Your task to perform on an android device: snooze an email in the gmail app Image 0: 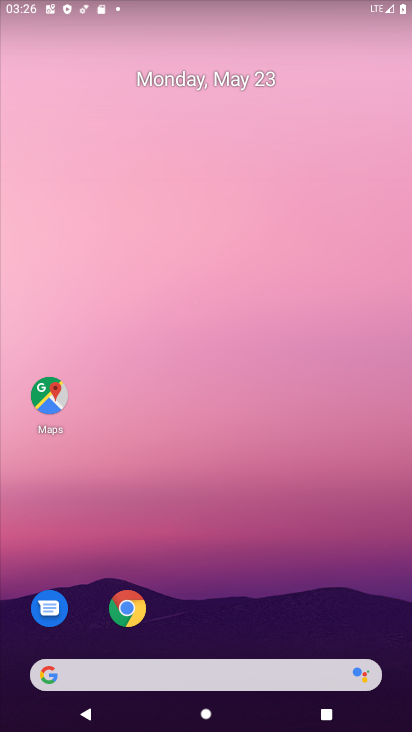
Step 0: drag from (282, 613) to (198, 93)
Your task to perform on an android device: snooze an email in the gmail app Image 1: 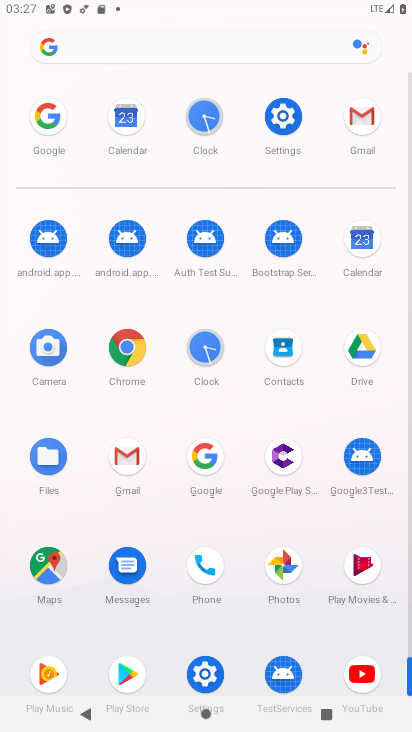
Step 1: click (361, 114)
Your task to perform on an android device: snooze an email in the gmail app Image 2: 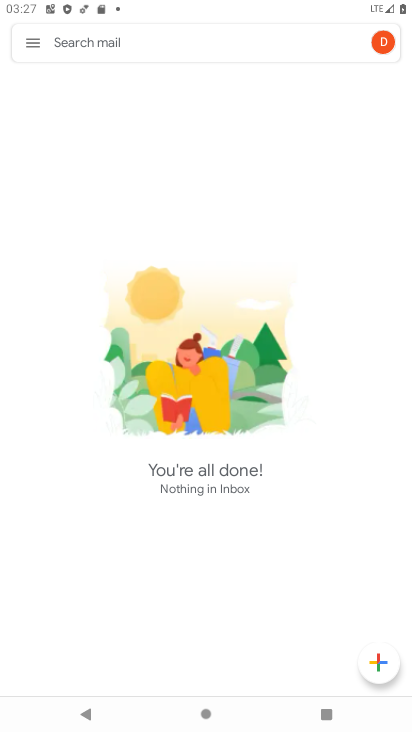
Step 2: click (39, 44)
Your task to perform on an android device: snooze an email in the gmail app Image 3: 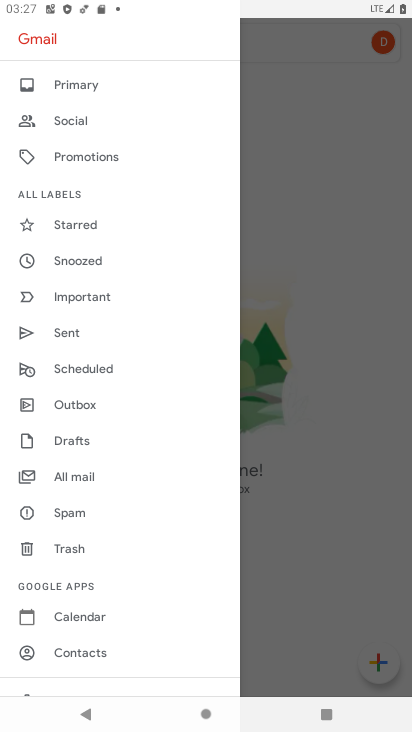
Step 3: click (84, 91)
Your task to perform on an android device: snooze an email in the gmail app Image 4: 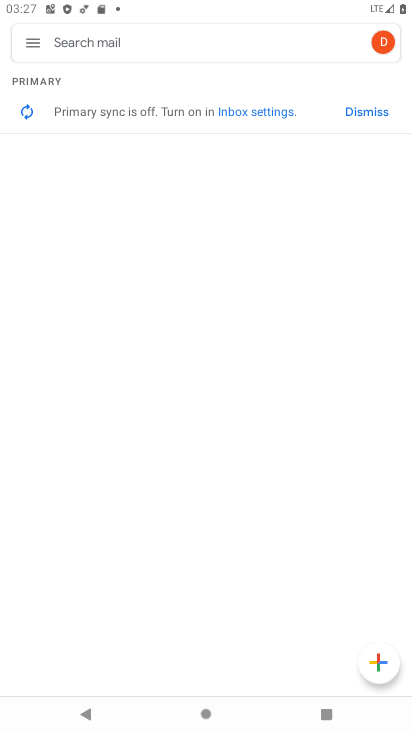
Step 4: click (33, 40)
Your task to perform on an android device: snooze an email in the gmail app Image 5: 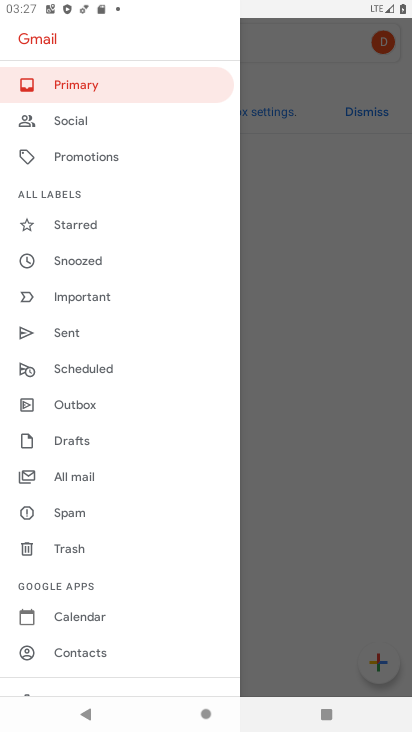
Step 5: click (82, 229)
Your task to perform on an android device: snooze an email in the gmail app Image 6: 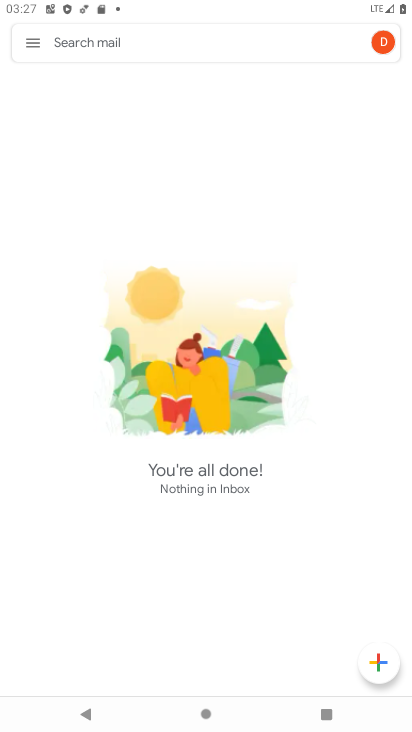
Step 6: click (26, 50)
Your task to perform on an android device: snooze an email in the gmail app Image 7: 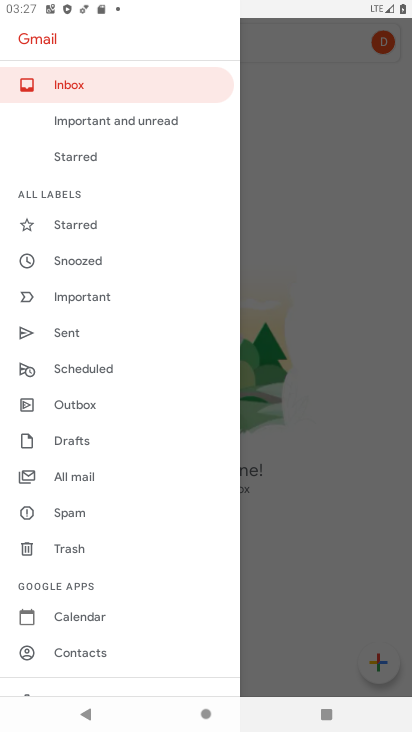
Step 7: click (85, 266)
Your task to perform on an android device: snooze an email in the gmail app Image 8: 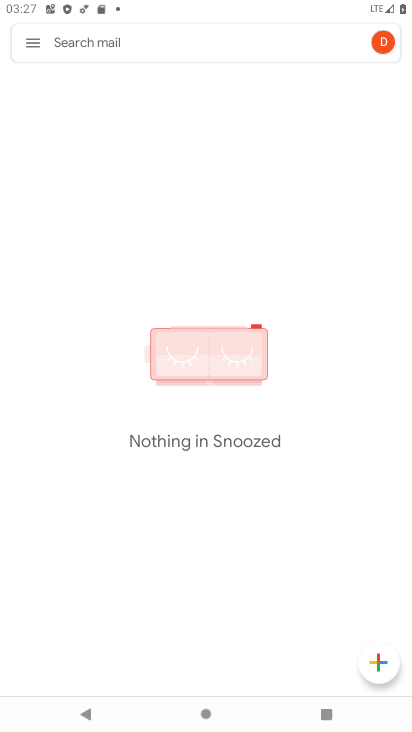
Step 8: click (38, 42)
Your task to perform on an android device: snooze an email in the gmail app Image 9: 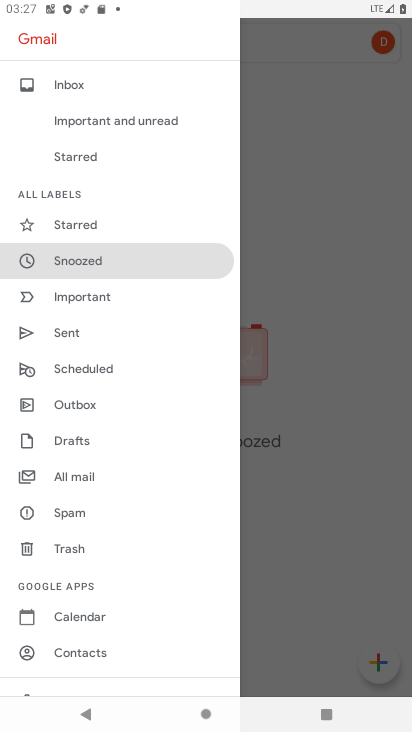
Step 9: click (99, 478)
Your task to perform on an android device: snooze an email in the gmail app Image 10: 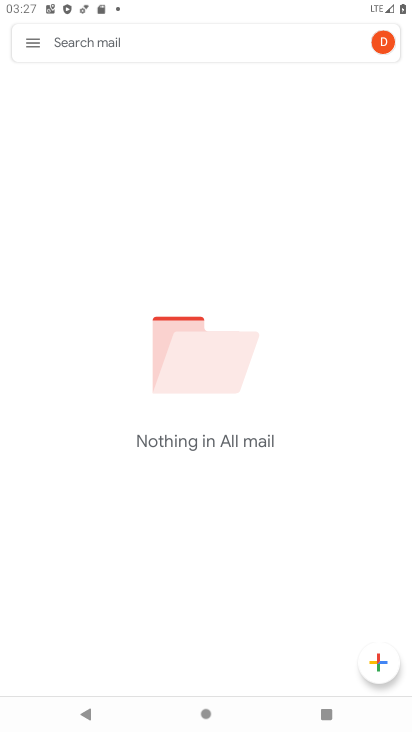
Step 10: task complete